Your task to perform on an android device: set an alarm Image 0: 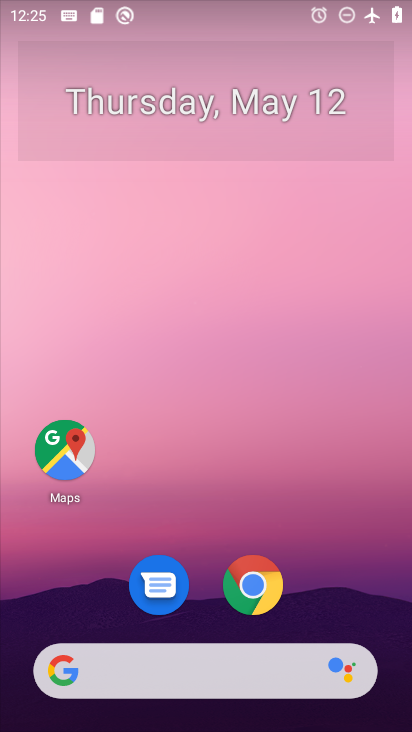
Step 0: drag from (183, 438) to (202, 68)
Your task to perform on an android device: set an alarm Image 1: 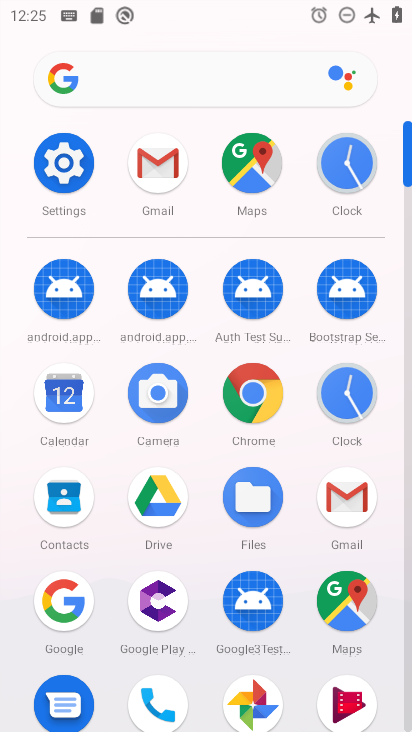
Step 1: click (333, 162)
Your task to perform on an android device: set an alarm Image 2: 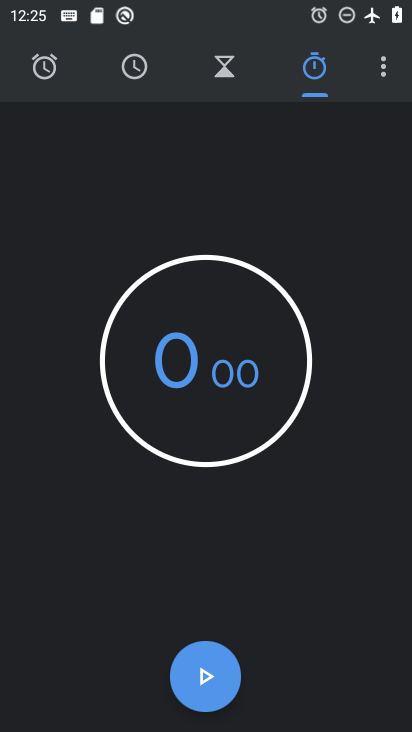
Step 2: click (45, 68)
Your task to perform on an android device: set an alarm Image 3: 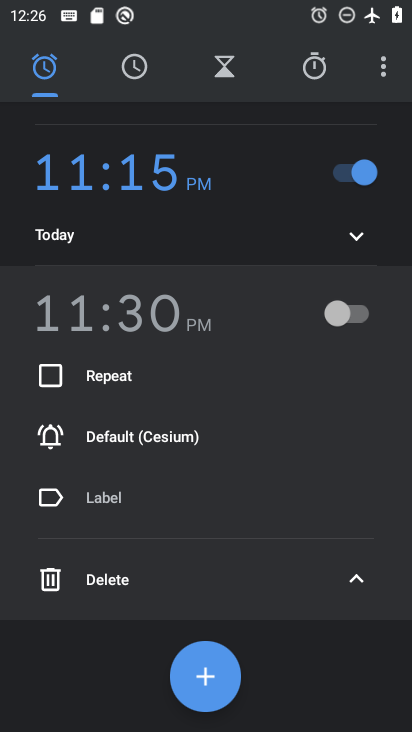
Step 3: click (217, 675)
Your task to perform on an android device: set an alarm Image 4: 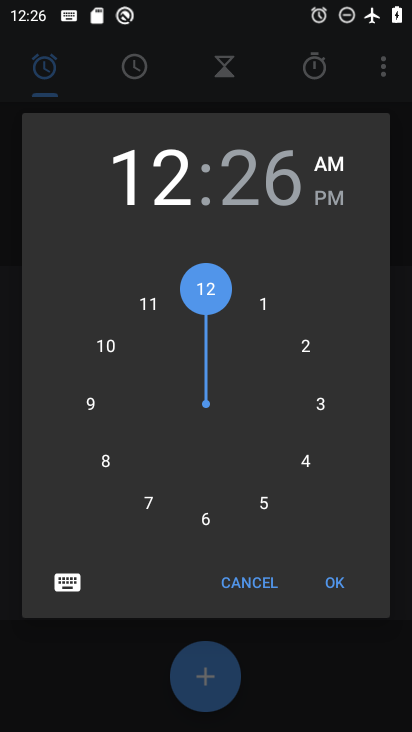
Step 4: click (266, 186)
Your task to perform on an android device: set an alarm Image 5: 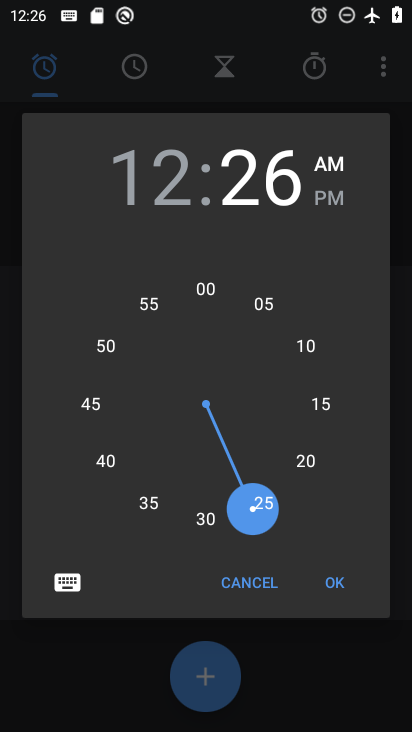
Step 5: click (208, 518)
Your task to perform on an android device: set an alarm Image 6: 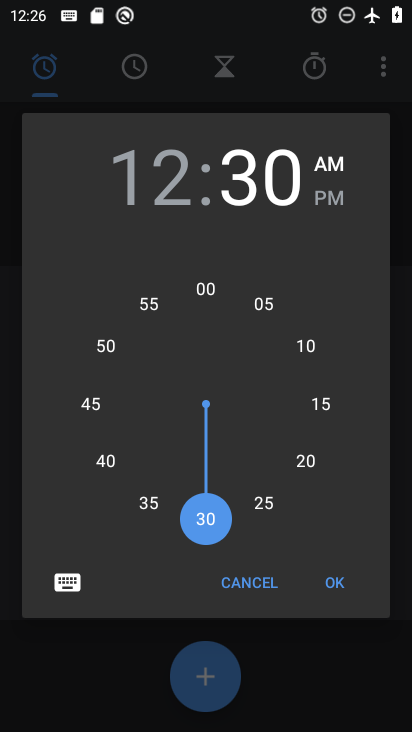
Step 6: click (338, 197)
Your task to perform on an android device: set an alarm Image 7: 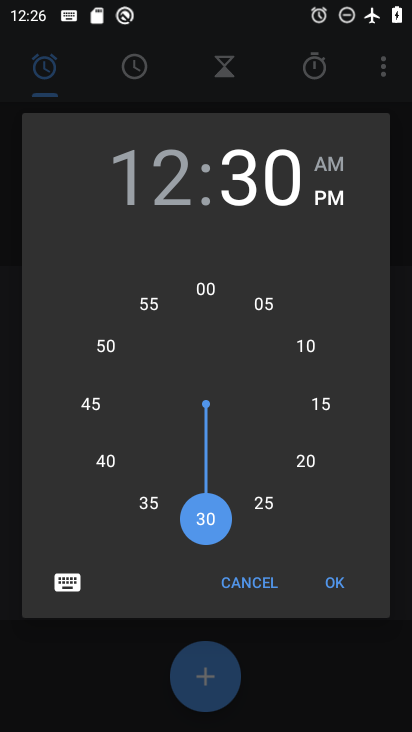
Step 7: click (329, 572)
Your task to perform on an android device: set an alarm Image 8: 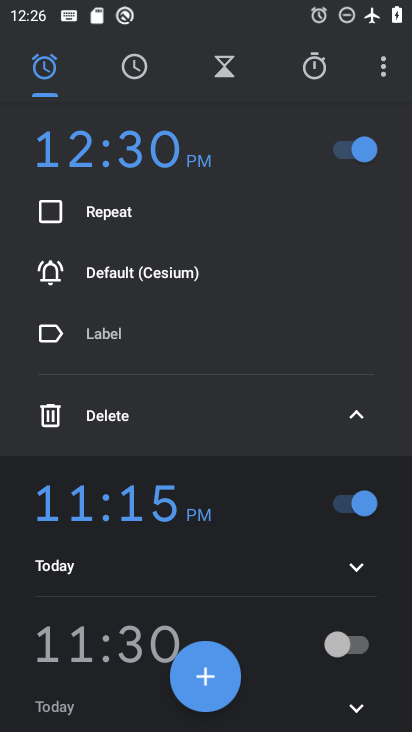
Step 8: task complete